Your task to perform on an android device: set an alarm Image 0: 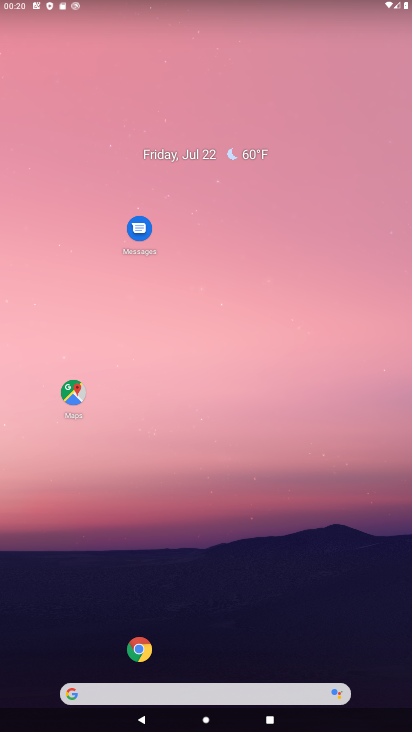
Step 0: drag from (92, 527) to (191, 250)
Your task to perform on an android device: set an alarm Image 1: 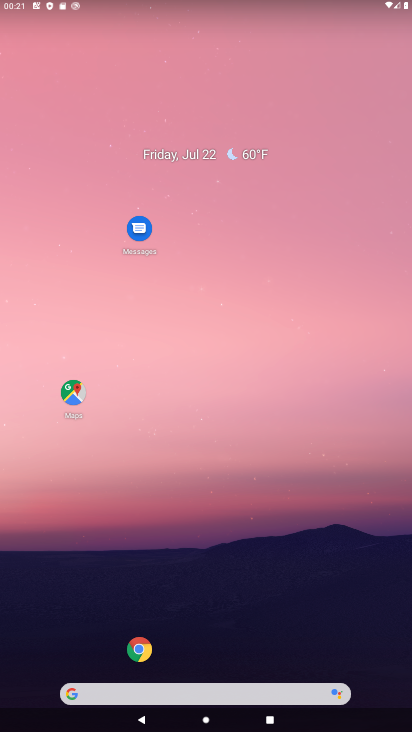
Step 1: drag from (40, 689) to (177, 247)
Your task to perform on an android device: set an alarm Image 2: 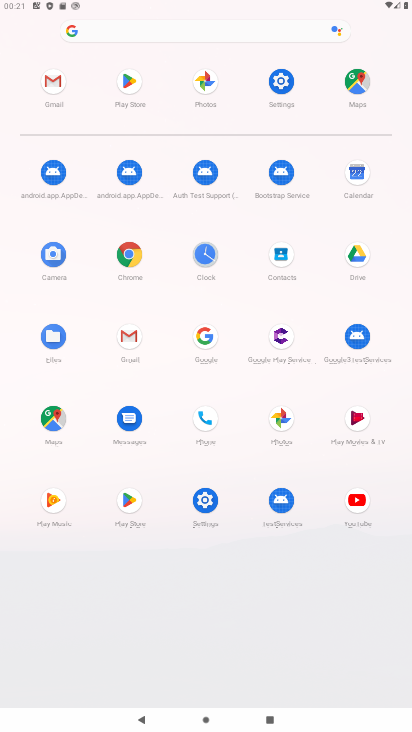
Step 2: click (195, 273)
Your task to perform on an android device: set an alarm Image 3: 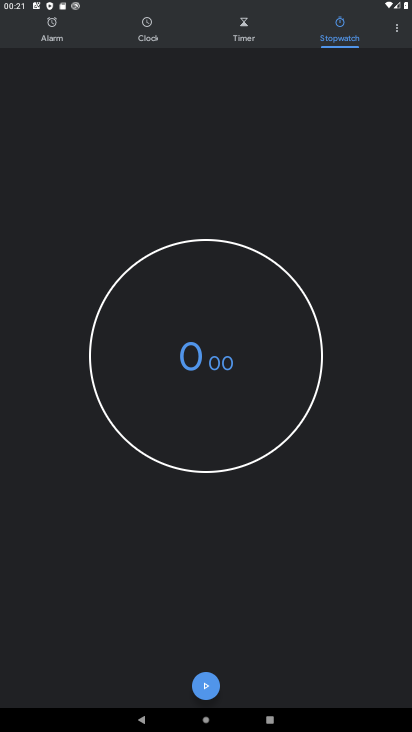
Step 3: click (70, 44)
Your task to perform on an android device: set an alarm Image 4: 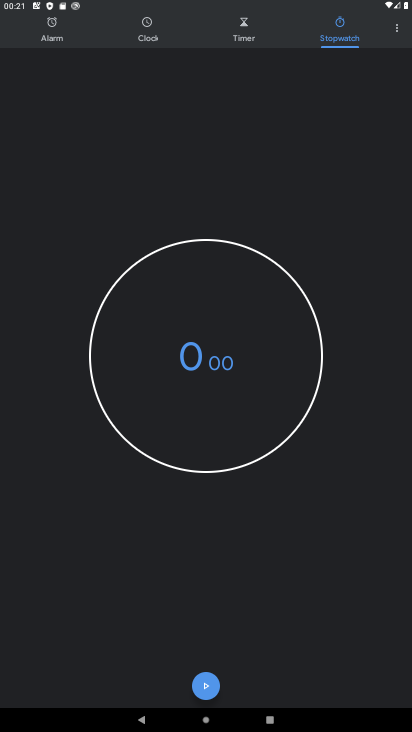
Step 4: click (55, 19)
Your task to perform on an android device: set an alarm Image 5: 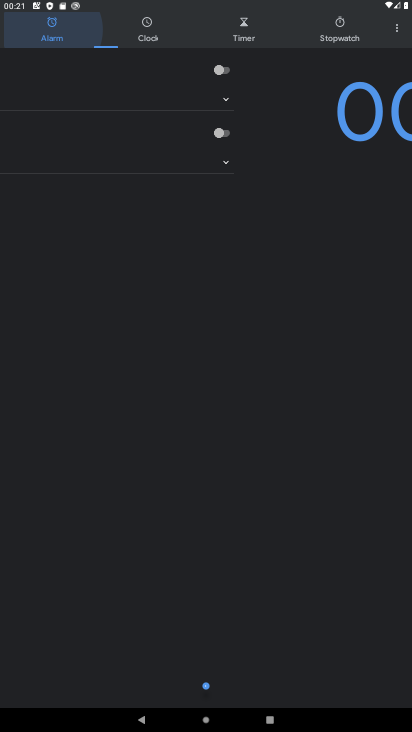
Step 5: click (52, 28)
Your task to perform on an android device: set an alarm Image 6: 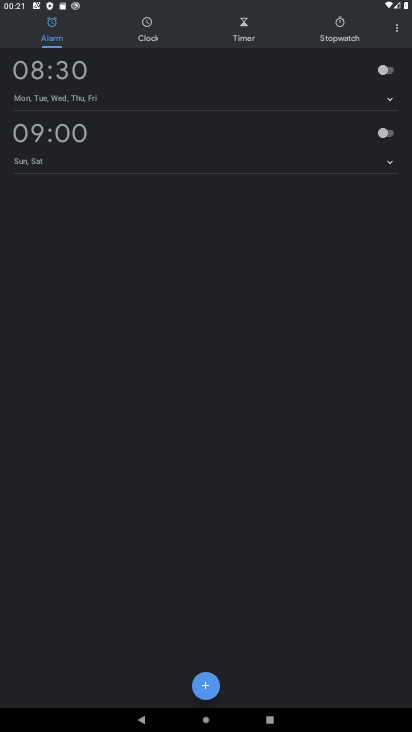
Step 6: click (392, 71)
Your task to perform on an android device: set an alarm Image 7: 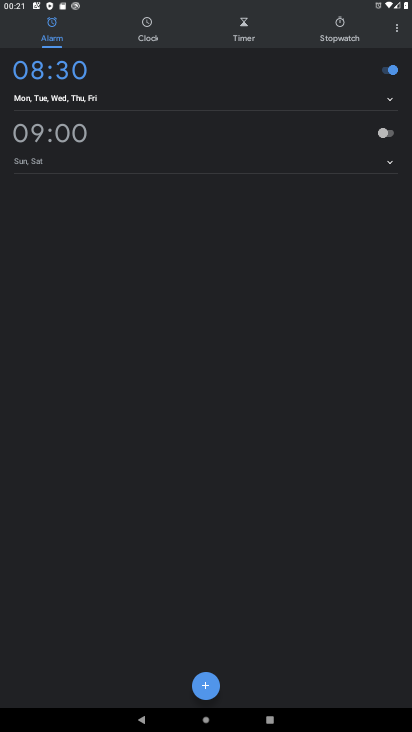
Step 7: task complete